Your task to perform on an android device: Open calendar and show me the first week of next month Image 0: 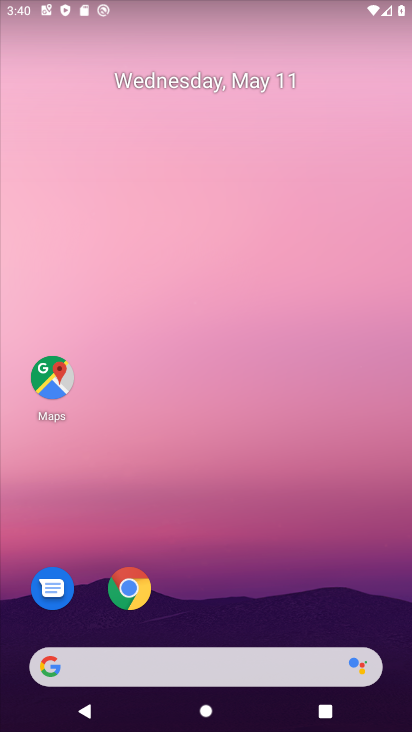
Step 0: drag from (198, 560) to (241, 6)
Your task to perform on an android device: Open calendar and show me the first week of next month Image 1: 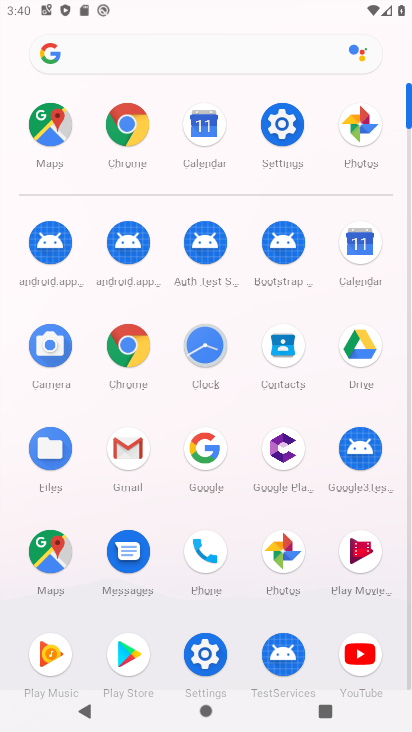
Step 1: click (365, 251)
Your task to perform on an android device: Open calendar and show me the first week of next month Image 2: 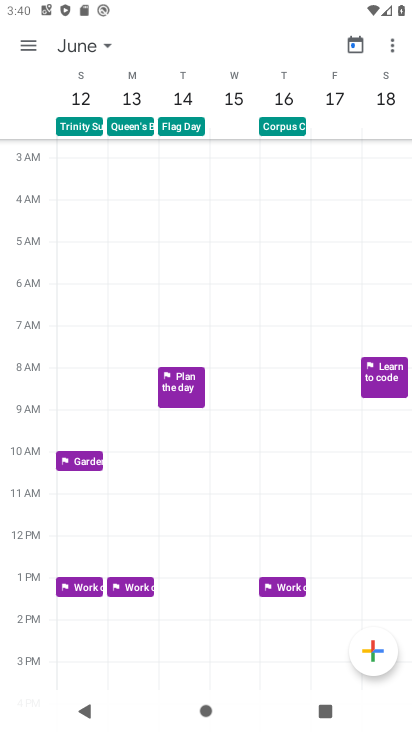
Step 2: task complete